Your task to perform on an android device: delete a single message in the gmail app Image 0: 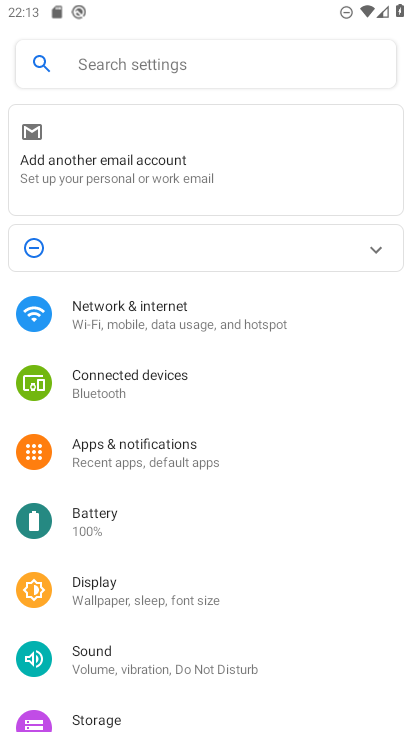
Step 0: press home button
Your task to perform on an android device: delete a single message in the gmail app Image 1: 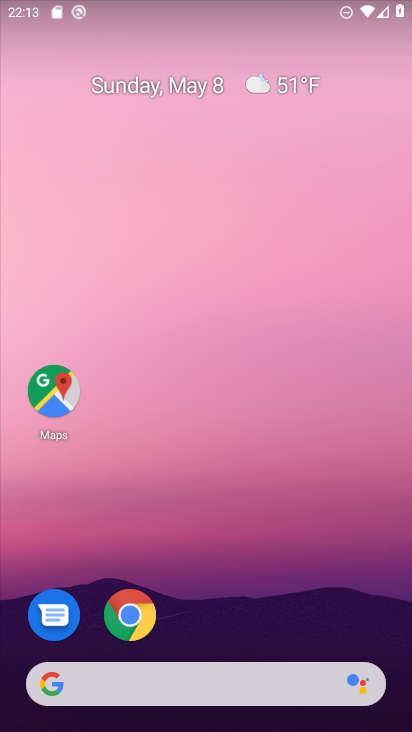
Step 1: drag from (252, 586) to (232, 14)
Your task to perform on an android device: delete a single message in the gmail app Image 2: 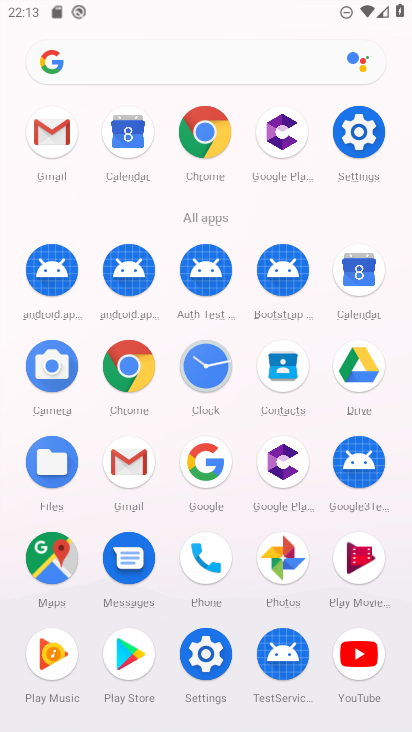
Step 2: drag from (220, 509) to (252, 113)
Your task to perform on an android device: delete a single message in the gmail app Image 3: 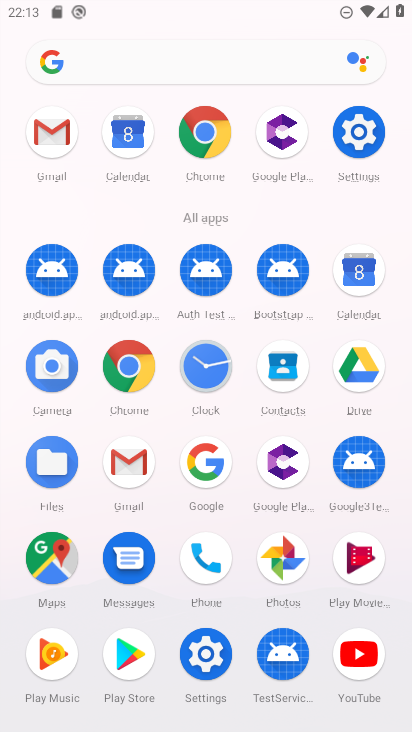
Step 3: click (141, 467)
Your task to perform on an android device: delete a single message in the gmail app Image 4: 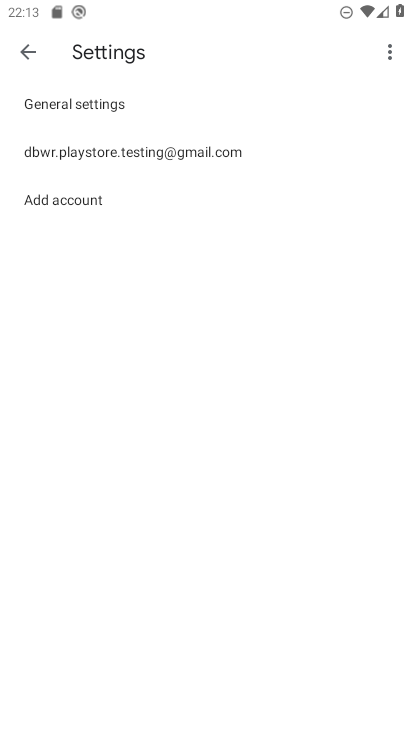
Step 4: click (28, 54)
Your task to perform on an android device: delete a single message in the gmail app Image 5: 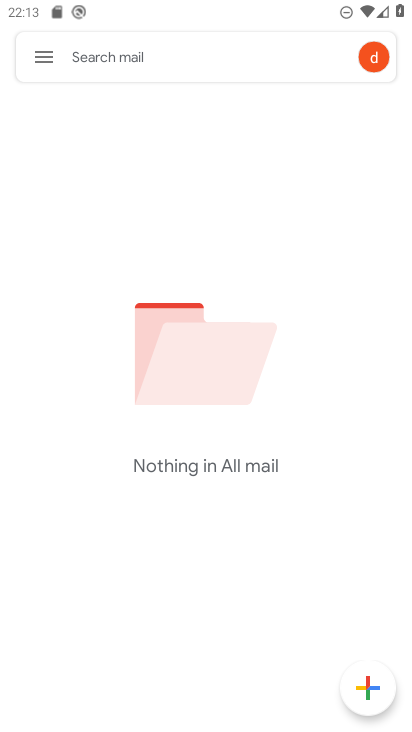
Step 5: click (39, 52)
Your task to perform on an android device: delete a single message in the gmail app Image 6: 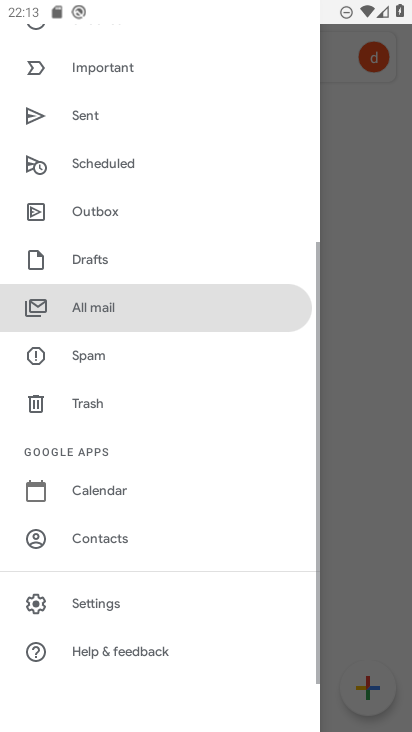
Step 6: click (127, 319)
Your task to perform on an android device: delete a single message in the gmail app Image 7: 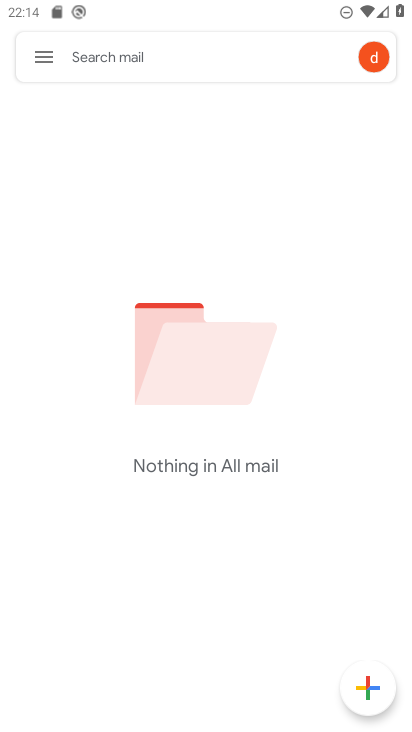
Step 7: task complete